Your task to perform on an android device: Open Google Chrome and open the bookmarks view Image 0: 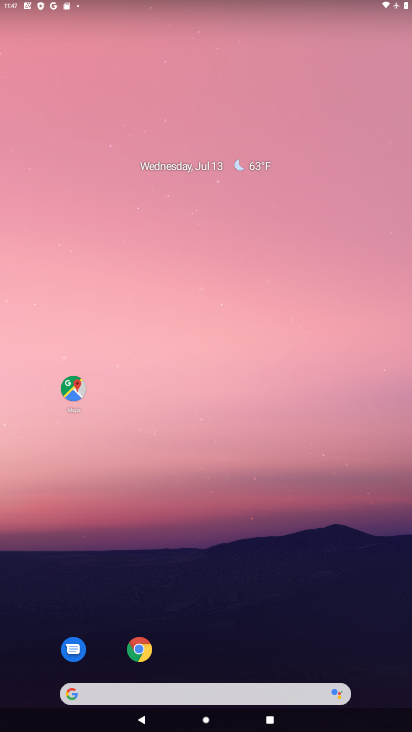
Step 0: drag from (289, 550) to (315, 214)
Your task to perform on an android device: Open Google Chrome and open the bookmarks view Image 1: 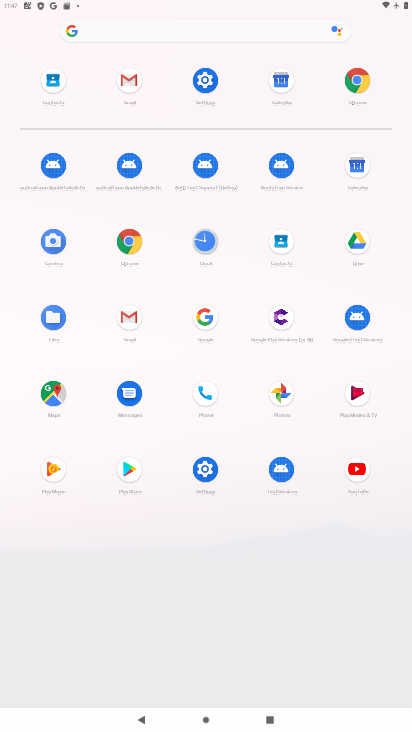
Step 1: click (127, 246)
Your task to perform on an android device: Open Google Chrome and open the bookmarks view Image 2: 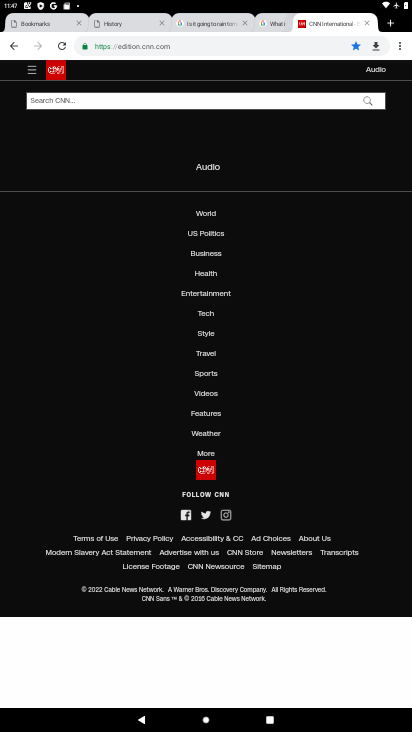
Step 2: click (403, 43)
Your task to perform on an android device: Open Google Chrome and open the bookmarks view Image 3: 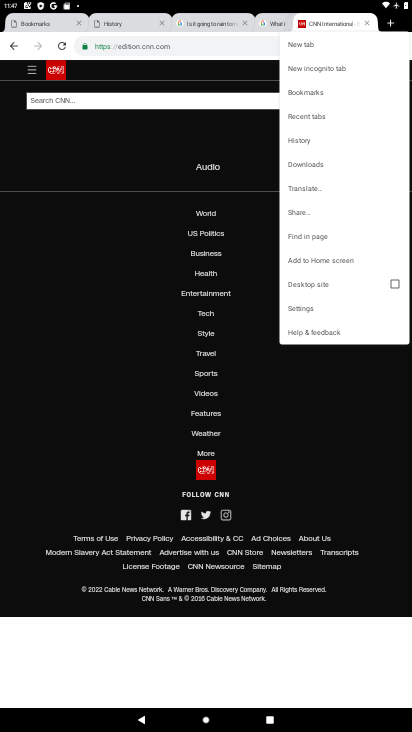
Step 3: click (325, 93)
Your task to perform on an android device: Open Google Chrome and open the bookmarks view Image 4: 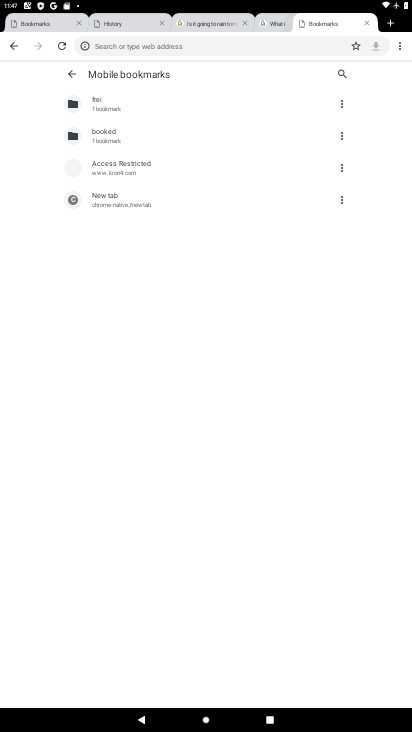
Step 4: task complete